Your task to perform on an android device: Go to location settings Image 0: 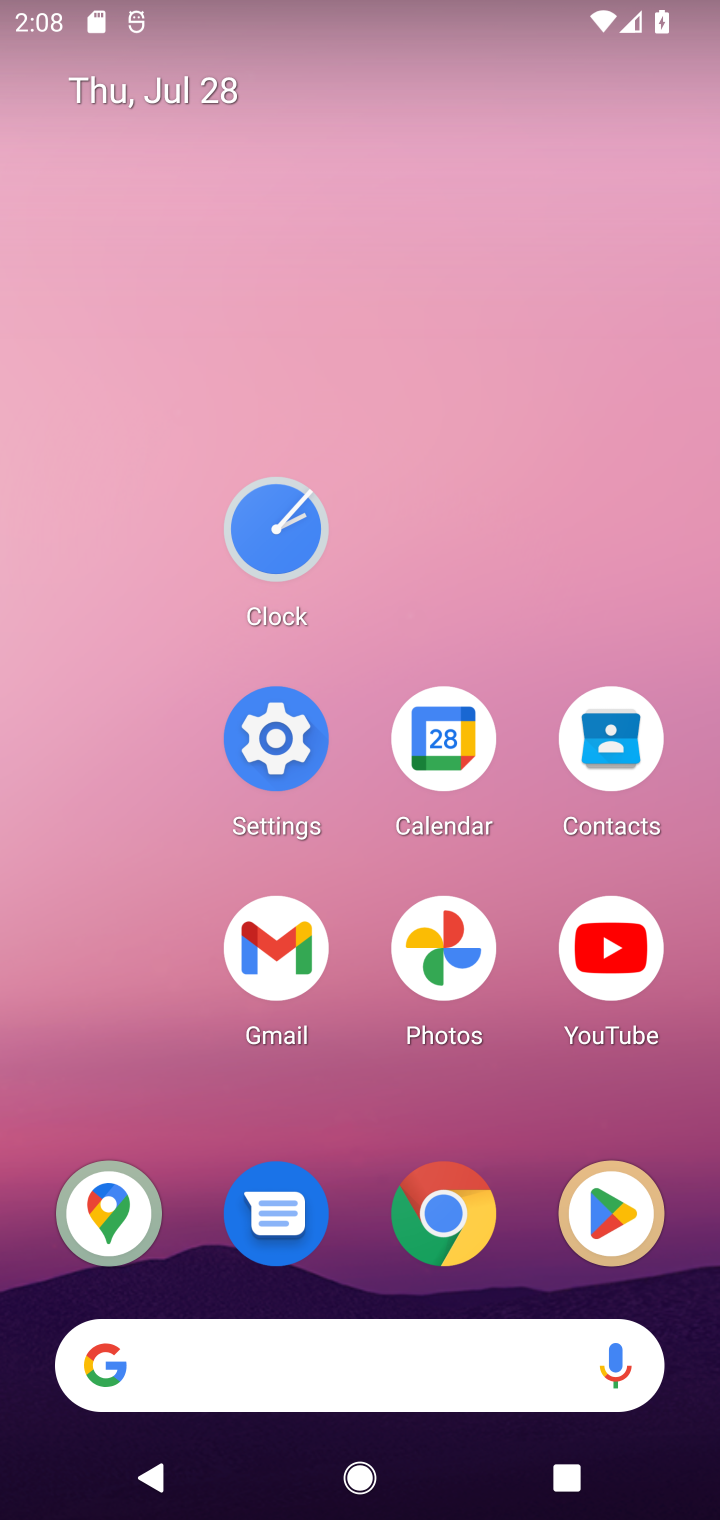
Step 0: click (271, 741)
Your task to perform on an android device: Go to location settings Image 1: 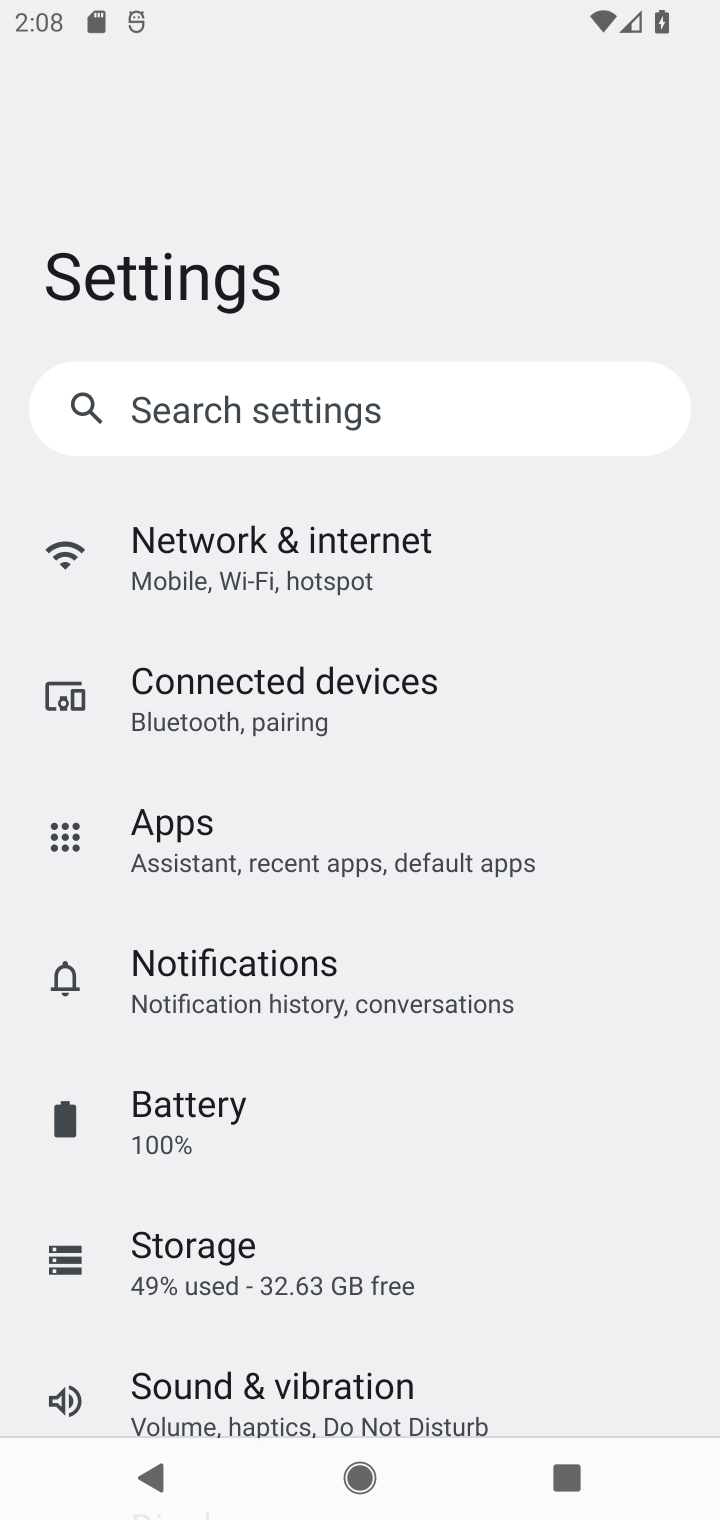
Step 1: drag from (566, 1304) to (612, 512)
Your task to perform on an android device: Go to location settings Image 2: 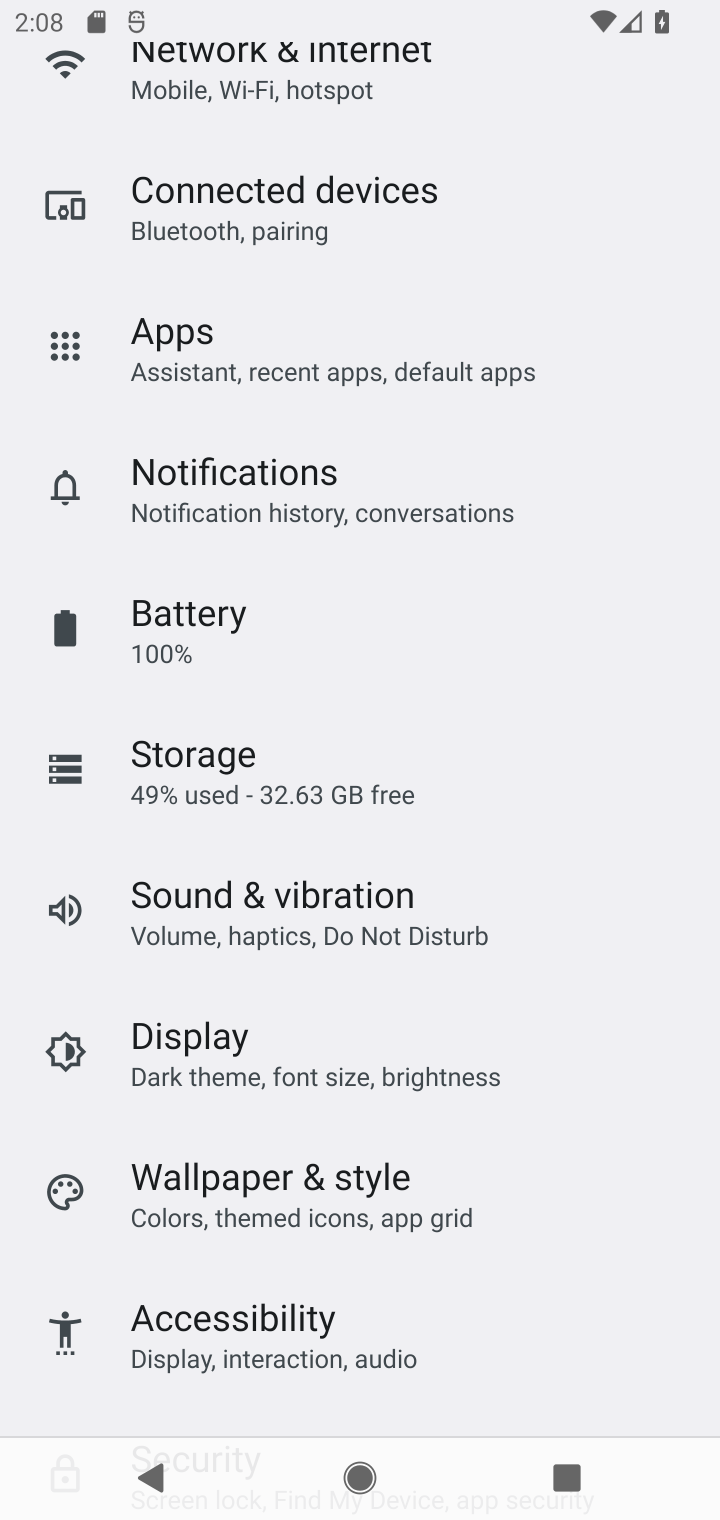
Step 2: drag from (583, 1305) to (517, 566)
Your task to perform on an android device: Go to location settings Image 3: 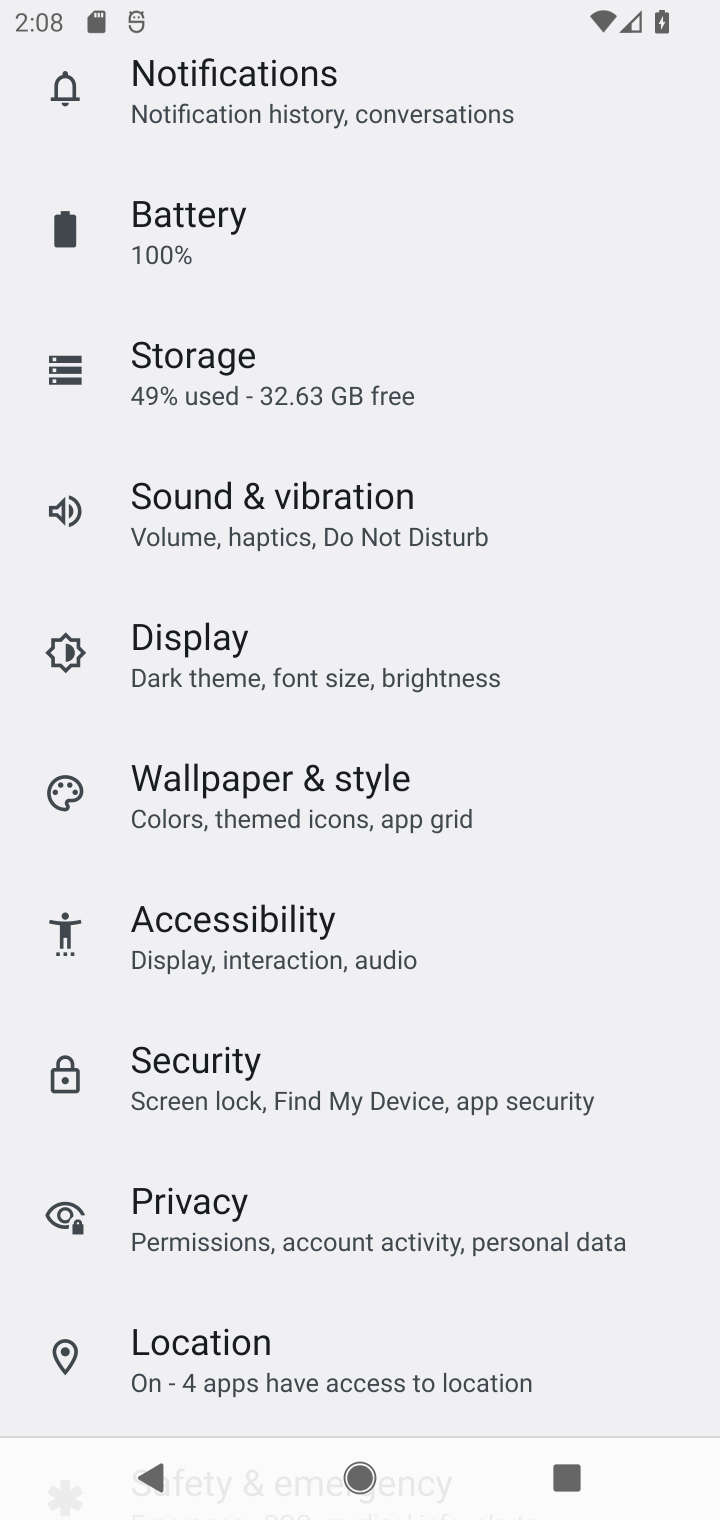
Step 3: click (192, 1335)
Your task to perform on an android device: Go to location settings Image 4: 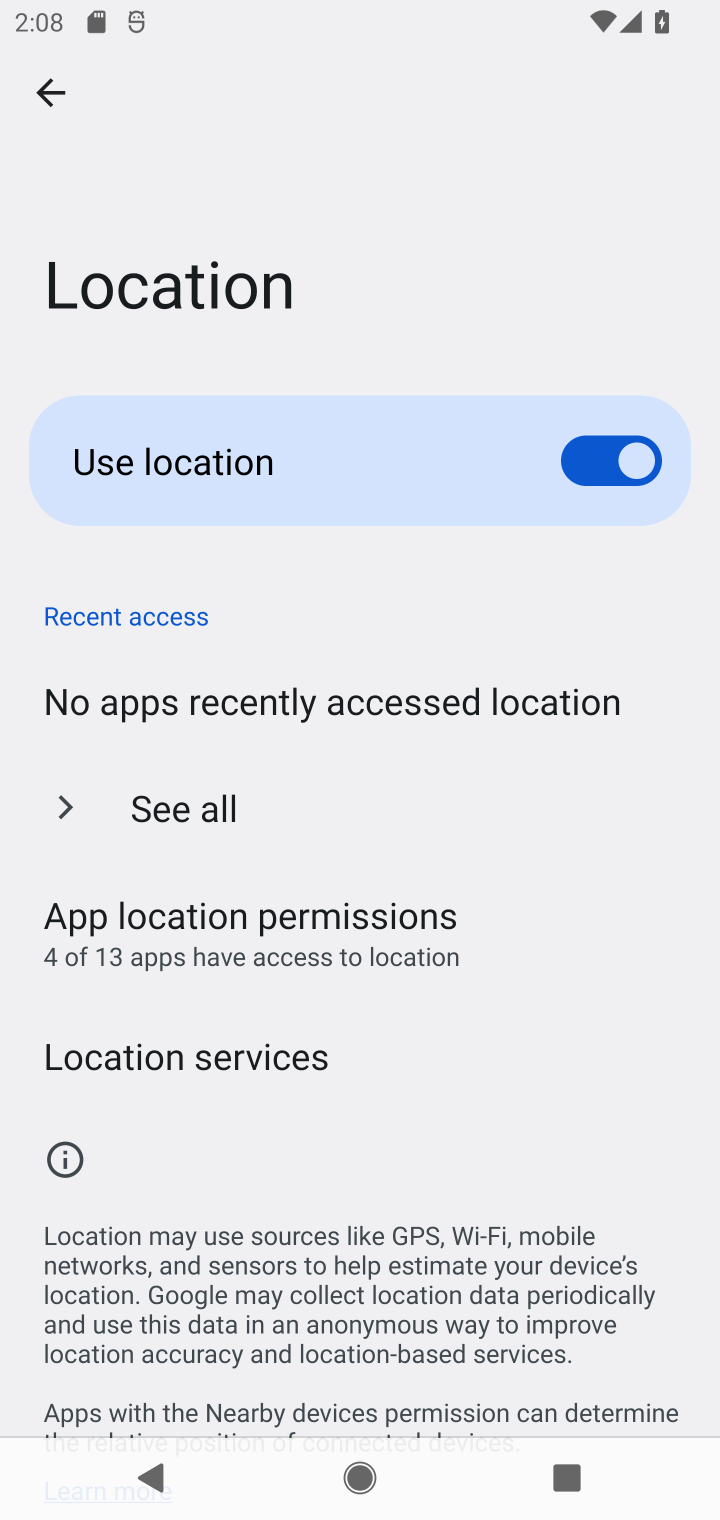
Step 4: task complete